Your task to perform on an android device: set an alarm Image 0: 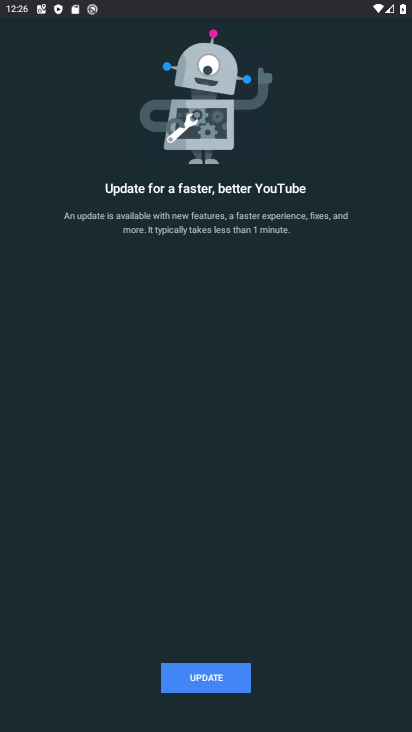
Step 0: press home button
Your task to perform on an android device: set an alarm Image 1: 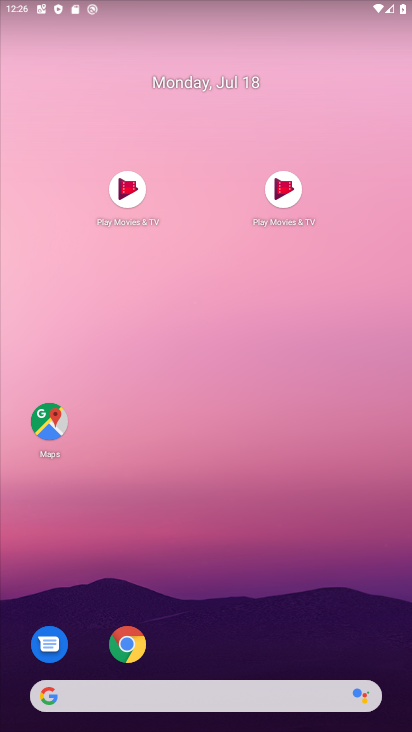
Step 1: drag from (275, 568) to (232, 107)
Your task to perform on an android device: set an alarm Image 2: 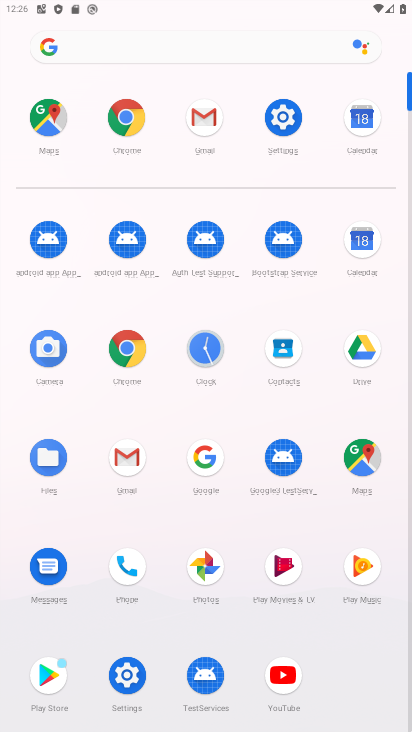
Step 2: click (207, 341)
Your task to perform on an android device: set an alarm Image 3: 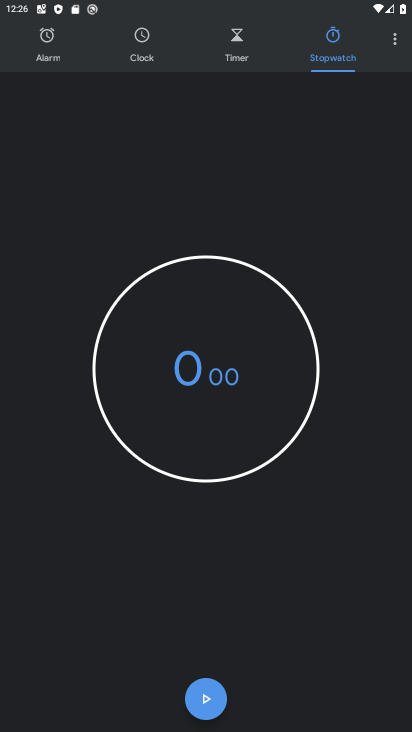
Step 3: click (67, 32)
Your task to perform on an android device: set an alarm Image 4: 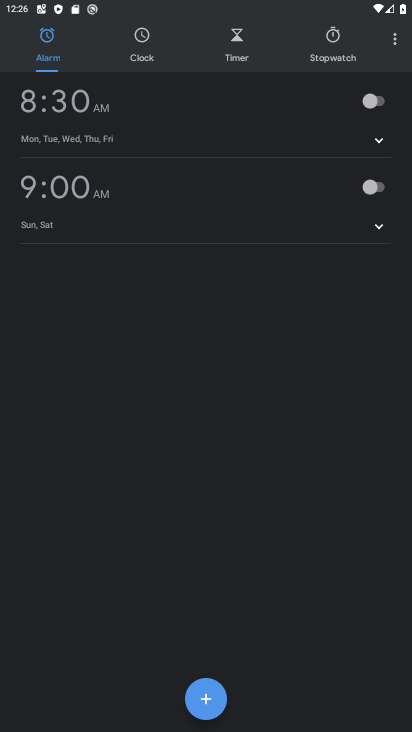
Step 4: click (200, 696)
Your task to perform on an android device: set an alarm Image 5: 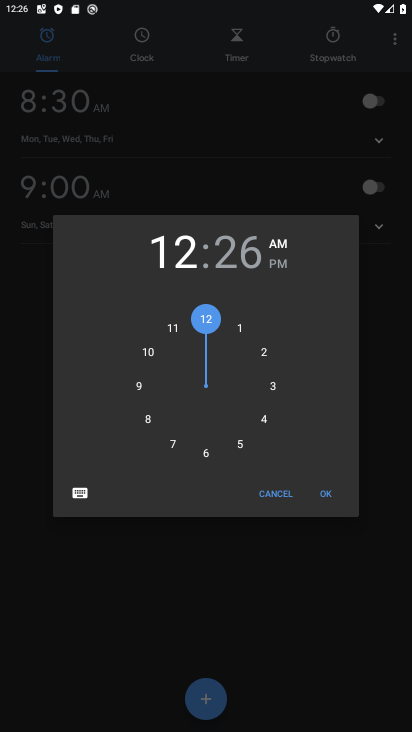
Step 5: click (320, 497)
Your task to perform on an android device: set an alarm Image 6: 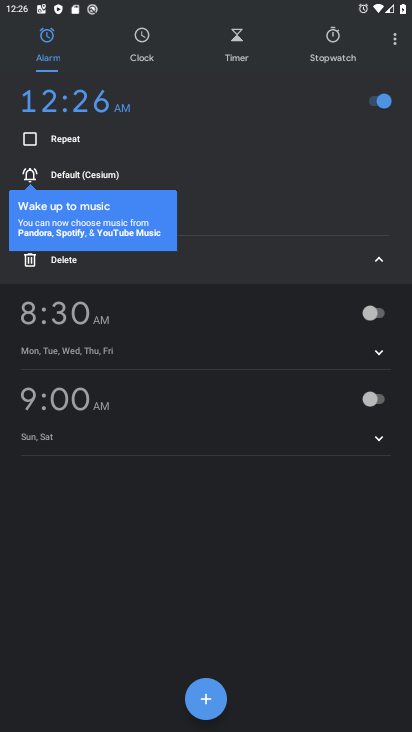
Step 6: task complete